Your task to perform on an android device: Go to notification settings Image 0: 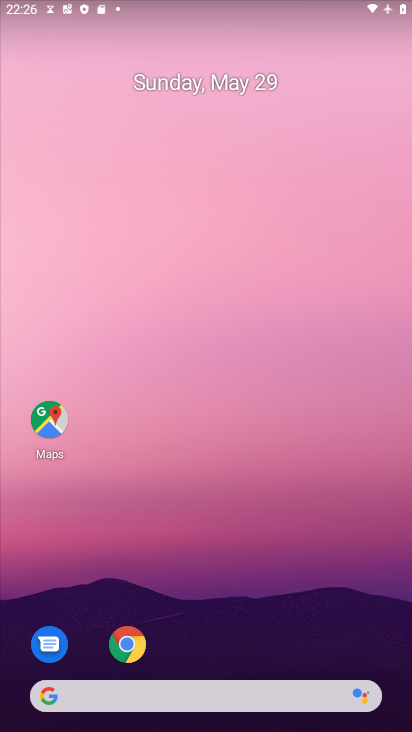
Step 0: drag from (228, 635) to (227, 297)
Your task to perform on an android device: Go to notification settings Image 1: 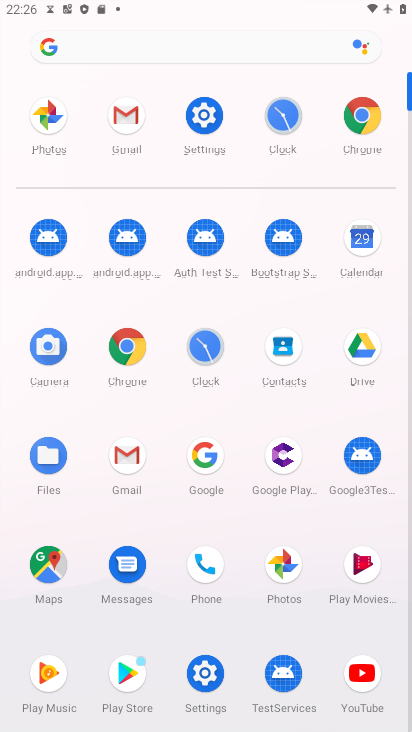
Step 1: click (202, 107)
Your task to perform on an android device: Go to notification settings Image 2: 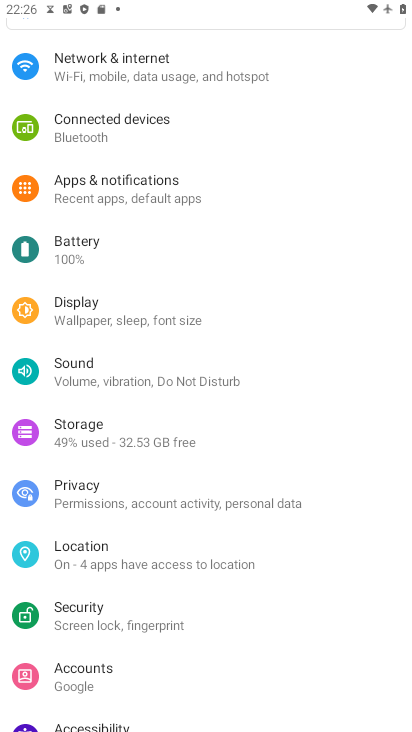
Step 2: click (166, 175)
Your task to perform on an android device: Go to notification settings Image 3: 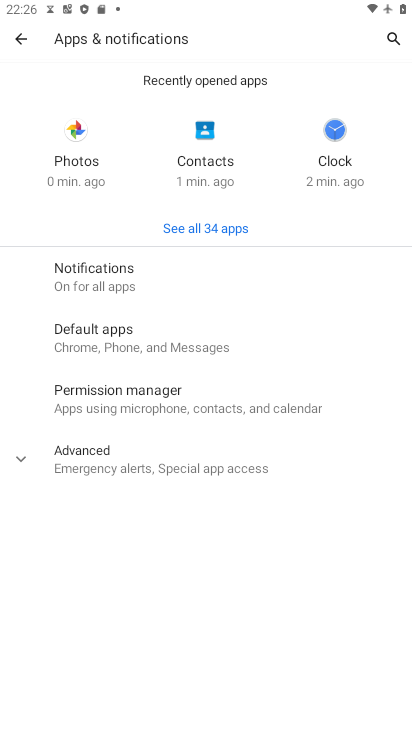
Step 3: click (141, 270)
Your task to perform on an android device: Go to notification settings Image 4: 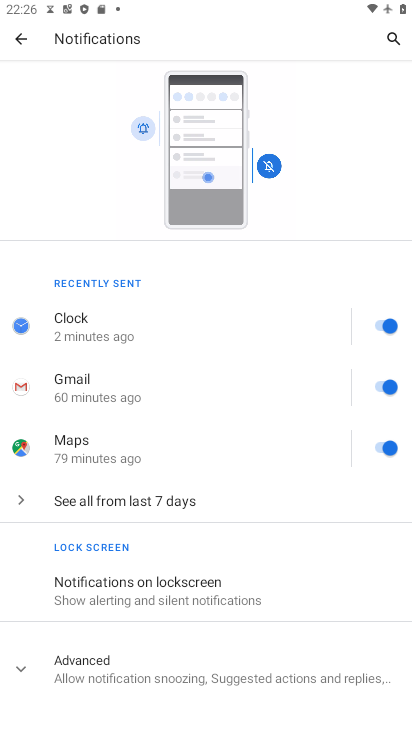
Step 4: click (175, 507)
Your task to perform on an android device: Go to notification settings Image 5: 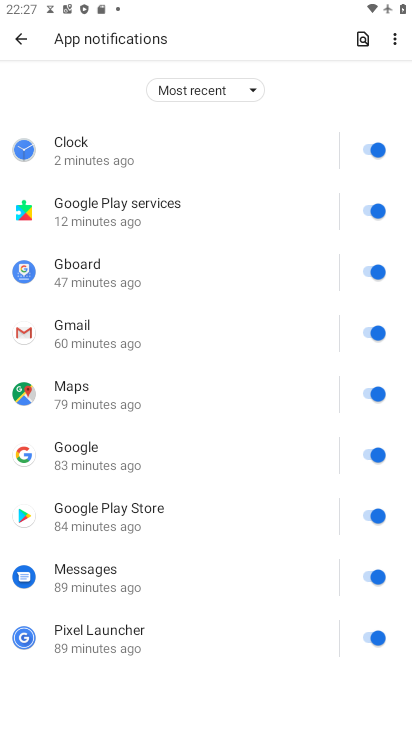
Step 5: task complete